Your task to perform on an android device: Go to network settings Image 0: 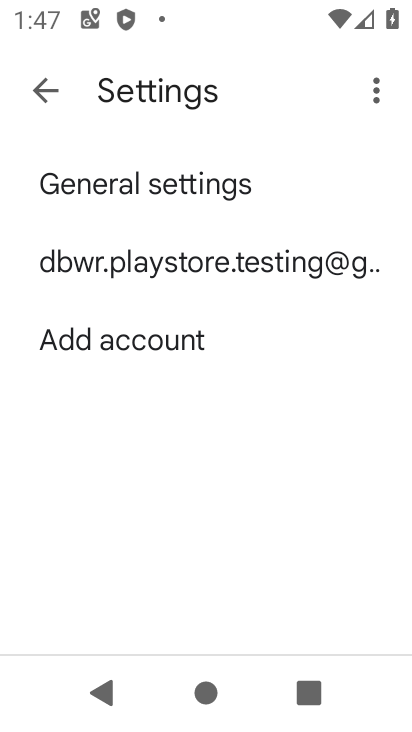
Step 0: task complete